Your task to perform on an android device: Open calendar and show me the fourth week of next month Image 0: 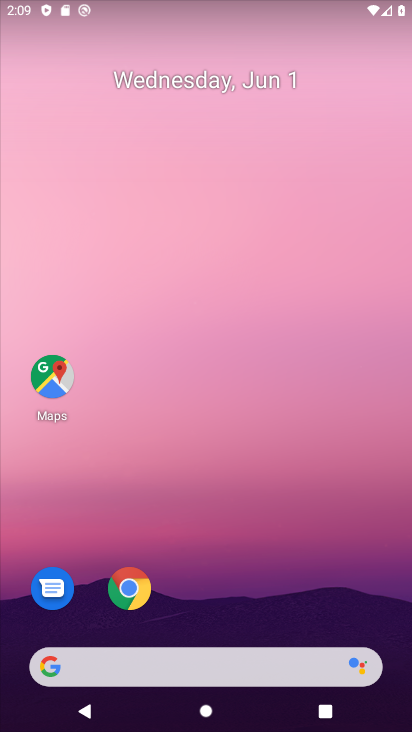
Step 0: drag from (212, 506) to (264, 188)
Your task to perform on an android device: Open calendar and show me the fourth week of next month Image 1: 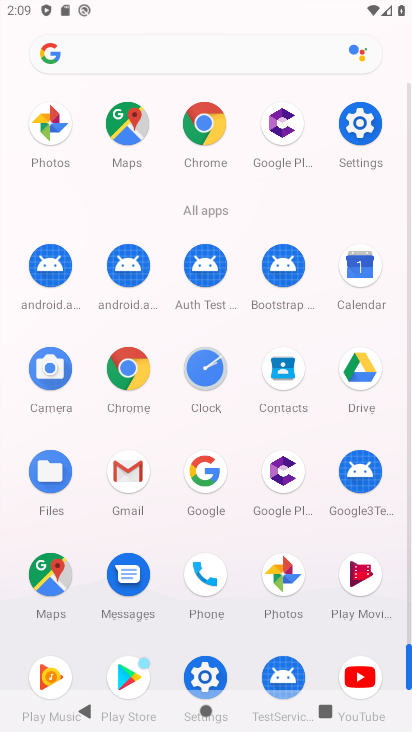
Step 1: click (357, 280)
Your task to perform on an android device: Open calendar and show me the fourth week of next month Image 2: 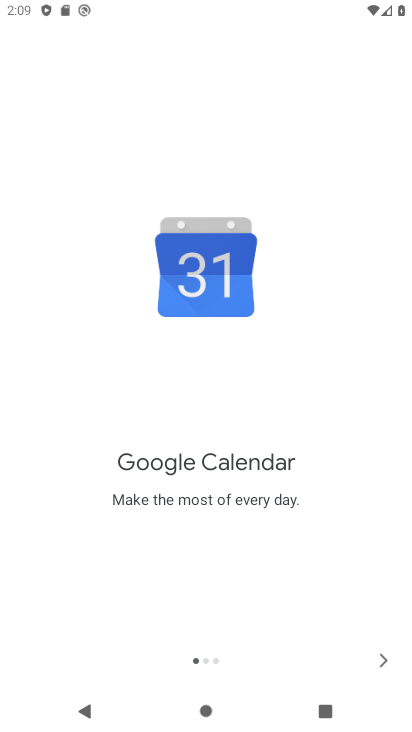
Step 2: click (372, 666)
Your task to perform on an android device: Open calendar and show me the fourth week of next month Image 3: 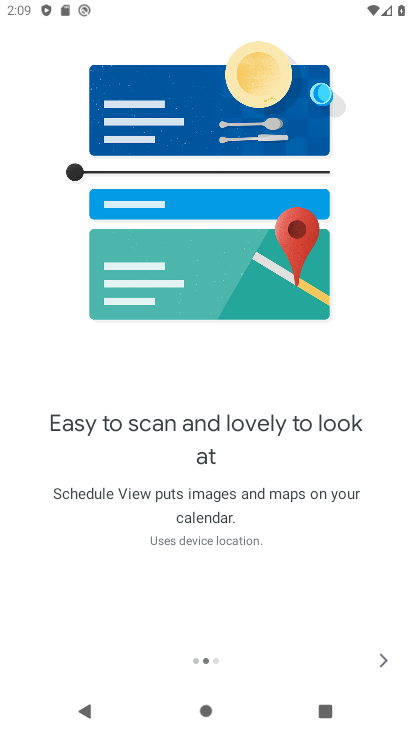
Step 3: click (372, 666)
Your task to perform on an android device: Open calendar and show me the fourth week of next month Image 4: 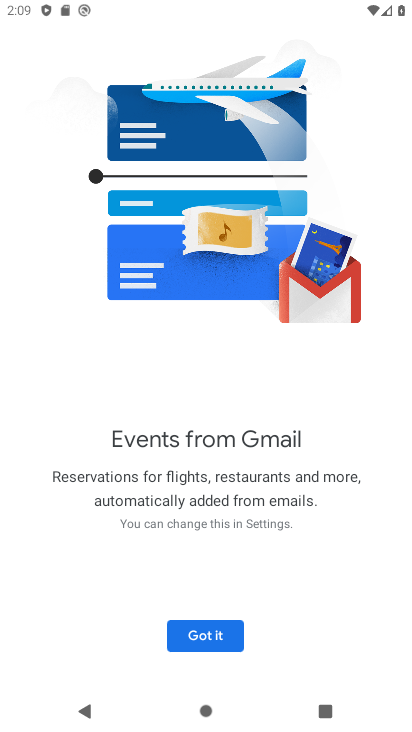
Step 4: click (207, 650)
Your task to perform on an android device: Open calendar and show me the fourth week of next month Image 5: 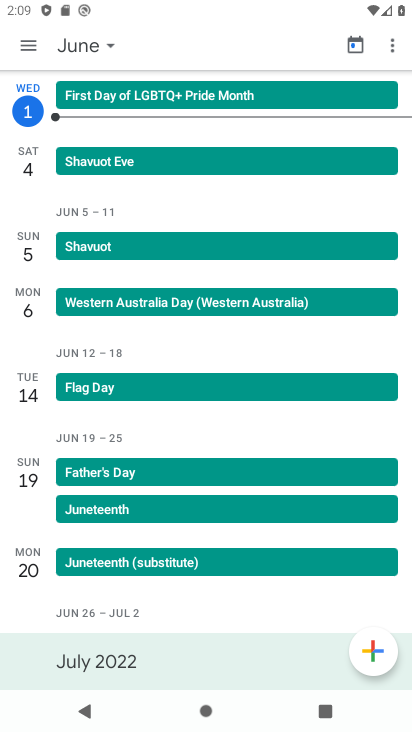
Step 5: click (105, 47)
Your task to perform on an android device: Open calendar and show me the fourth week of next month Image 6: 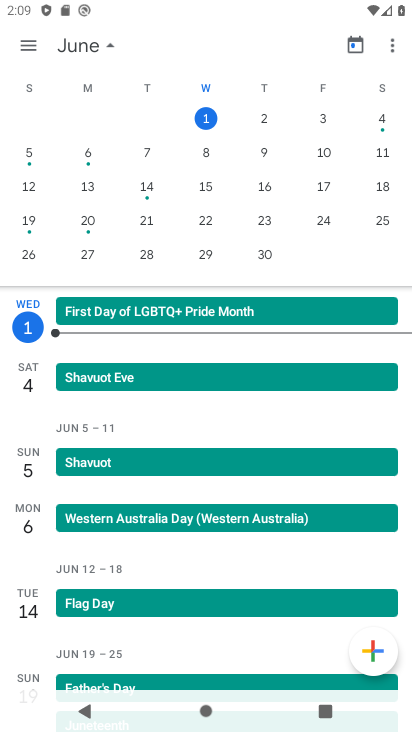
Step 6: drag from (392, 232) to (7, 236)
Your task to perform on an android device: Open calendar and show me the fourth week of next month Image 7: 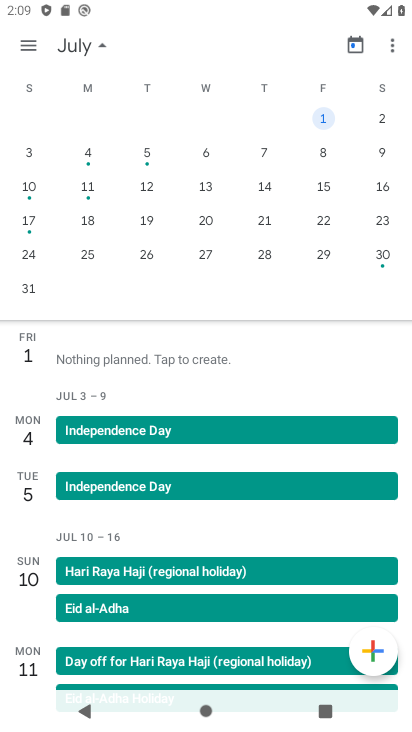
Step 7: click (35, 259)
Your task to perform on an android device: Open calendar and show me the fourth week of next month Image 8: 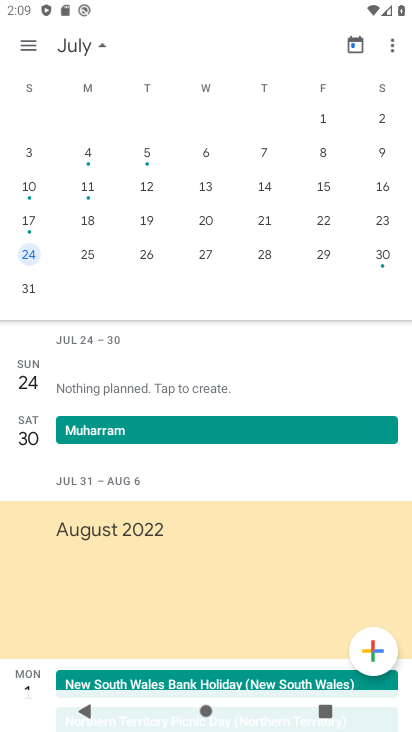
Step 8: click (89, 43)
Your task to perform on an android device: Open calendar and show me the fourth week of next month Image 9: 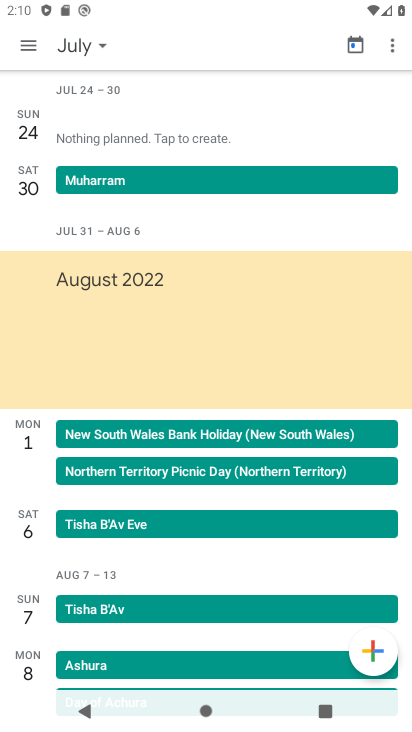
Step 9: click (29, 44)
Your task to perform on an android device: Open calendar and show me the fourth week of next month Image 10: 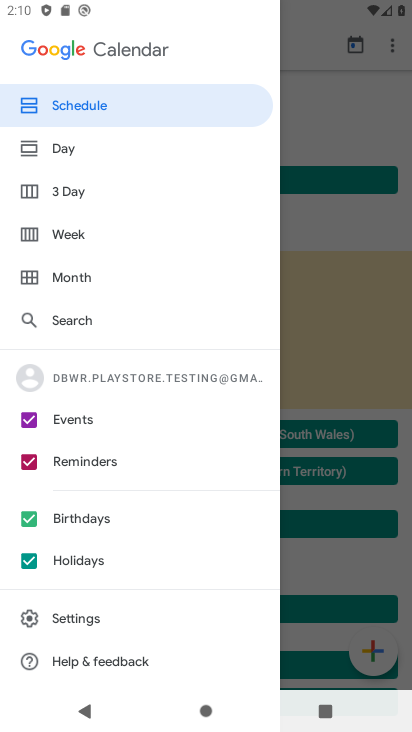
Step 10: click (117, 241)
Your task to perform on an android device: Open calendar and show me the fourth week of next month Image 11: 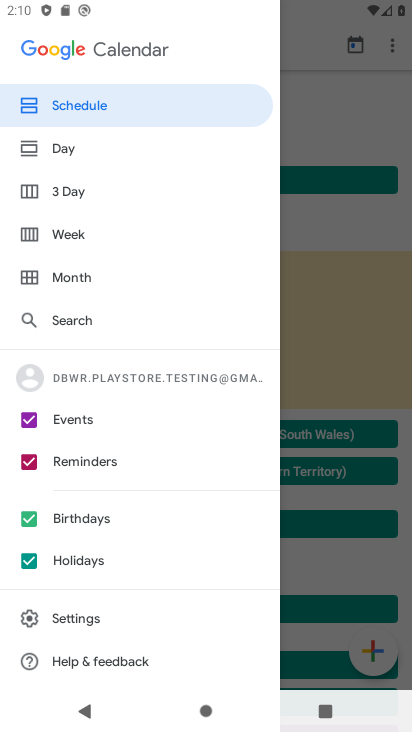
Step 11: click (111, 236)
Your task to perform on an android device: Open calendar and show me the fourth week of next month Image 12: 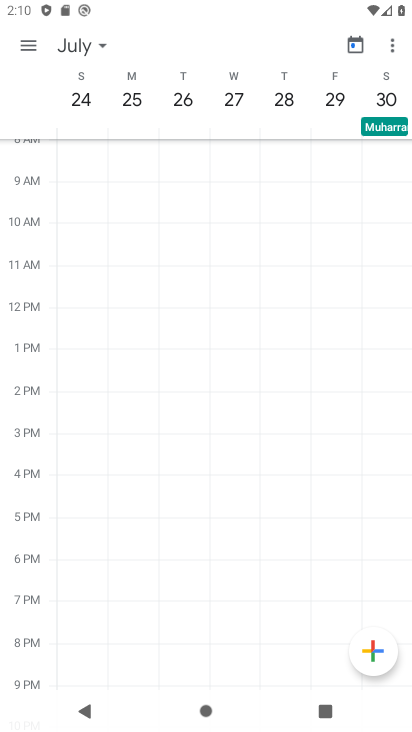
Step 12: task complete